Your task to perform on an android device: turn off wifi Image 0: 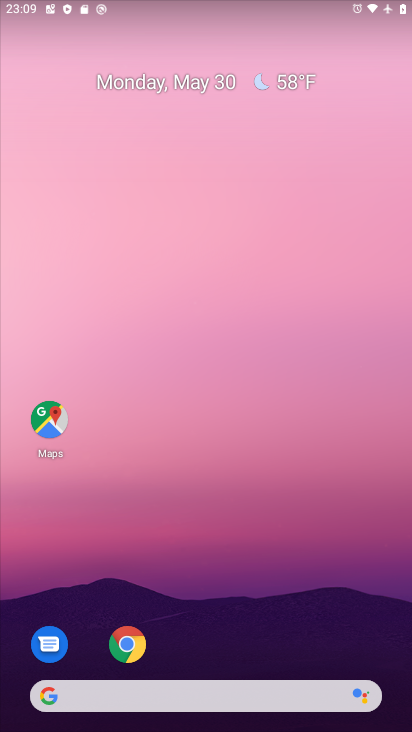
Step 0: drag from (370, 642) to (334, 69)
Your task to perform on an android device: turn off wifi Image 1: 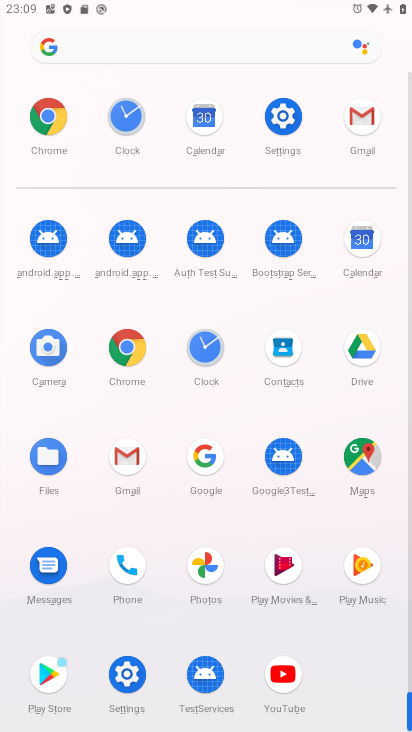
Step 1: click (126, 674)
Your task to perform on an android device: turn off wifi Image 2: 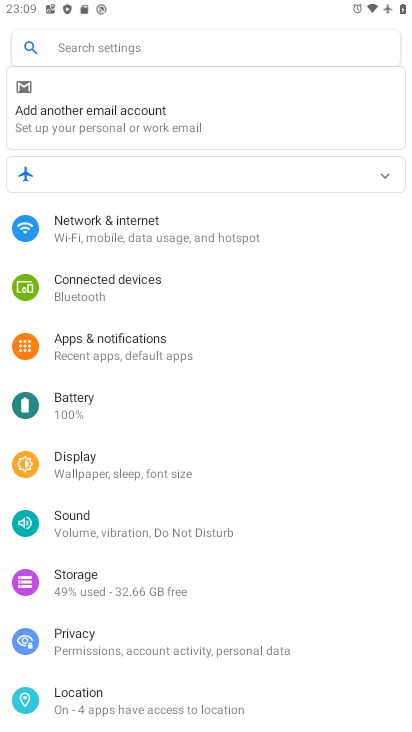
Step 2: click (107, 227)
Your task to perform on an android device: turn off wifi Image 3: 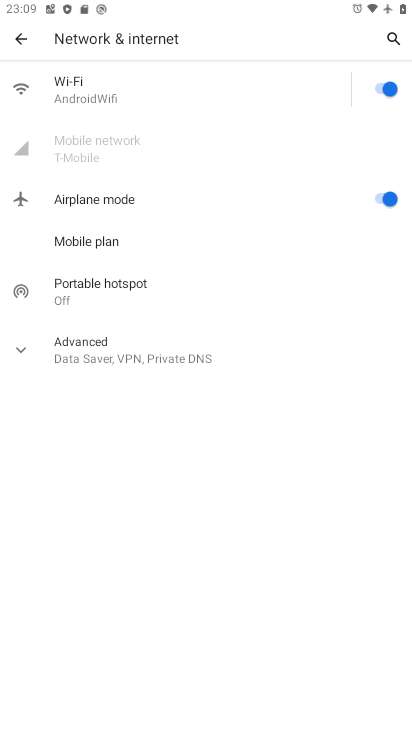
Step 3: click (375, 86)
Your task to perform on an android device: turn off wifi Image 4: 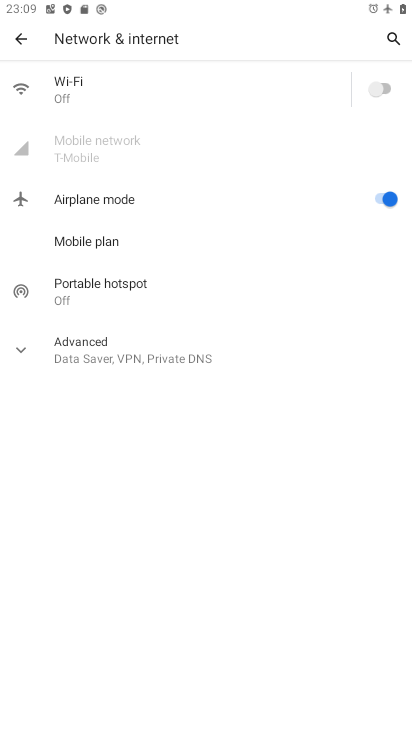
Step 4: task complete